Your task to perform on an android device: Open internet settings Image 0: 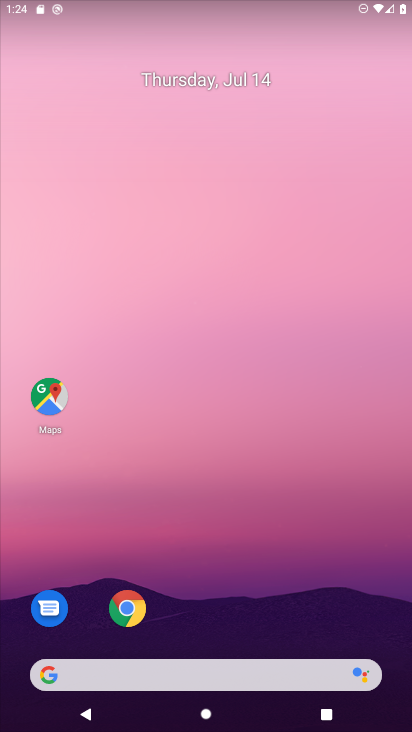
Step 0: drag from (243, 727) to (243, 191)
Your task to perform on an android device: Open internet settings Image 1: 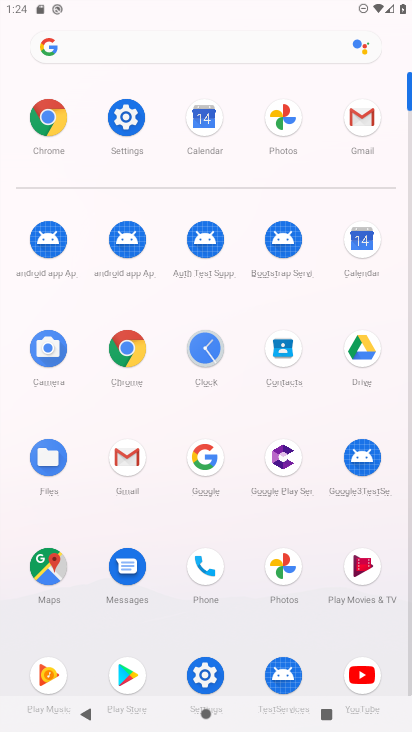
Step 1: click (129, 119)
Your task to perform on an android device: Open internet settings Image 2: 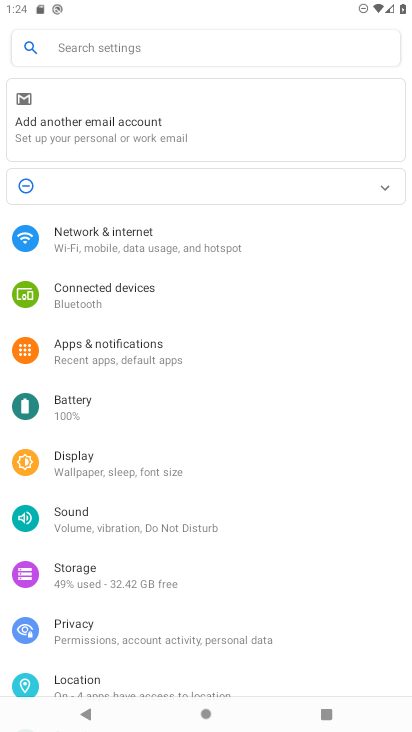
Step 2: click (102, 239)
Your task to perform on an android device: Open internet settings Image 3: 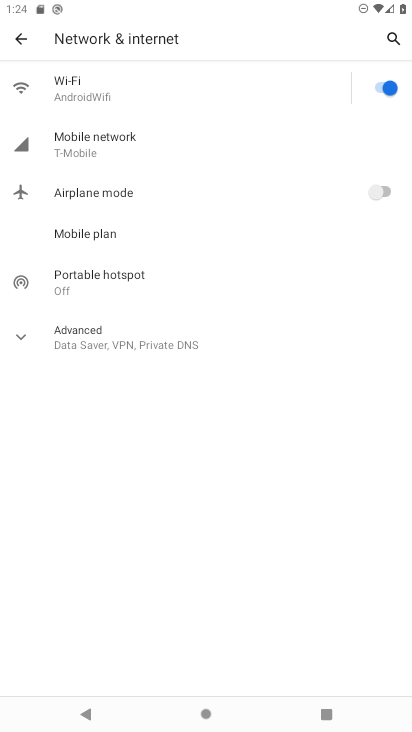
Step 3: task complete